Your task to perform on an android device: Open calendar and show me the fourth week of next month Image 0: 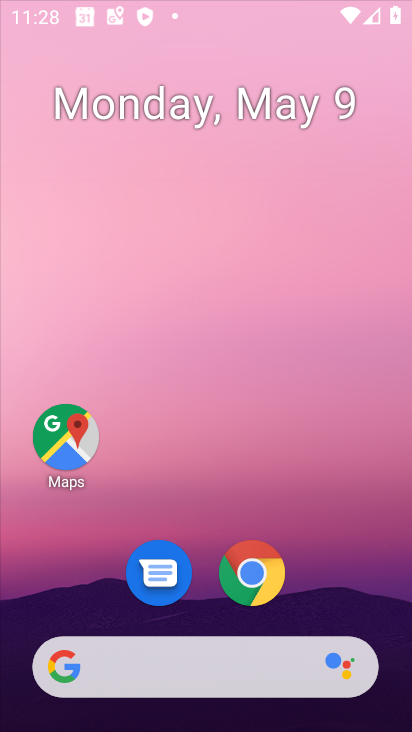
Step 0: drag from (180, 618) to (244, 245)
Your task to perform on an android device: Open calendar and show me the fourth week of next month Image 1: 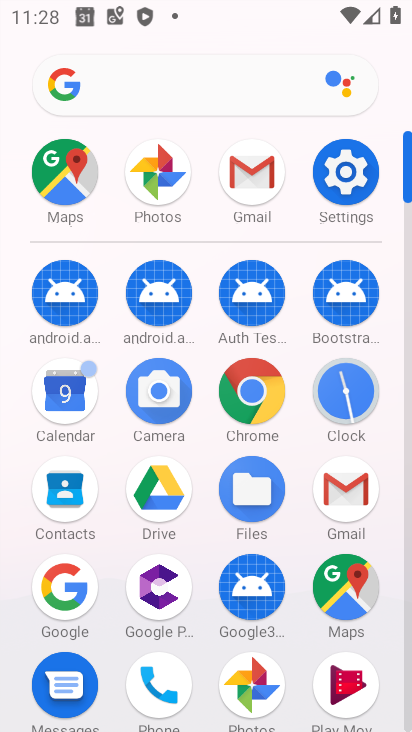
Step 1: click (50, 391)
Your task to perform on an android device: Open calendar and show me the fourth week of next month Image 2: 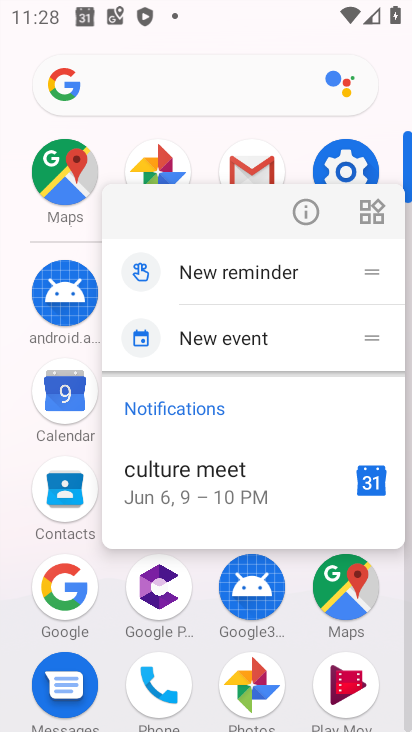
Step 2: click (74, 301)
Your task to perform on an android device: Open calendar and show me the fourth week of next month Image 3: 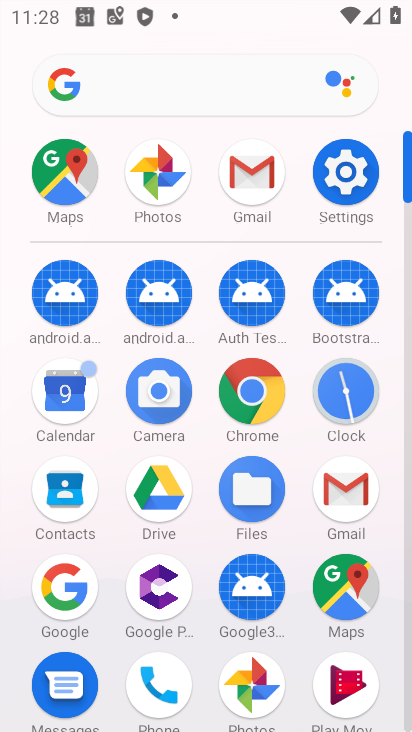
Step 3: click (66, 407)
Your task to perform on an android device: Open calendar and show me the fourth week of next month Image 4: 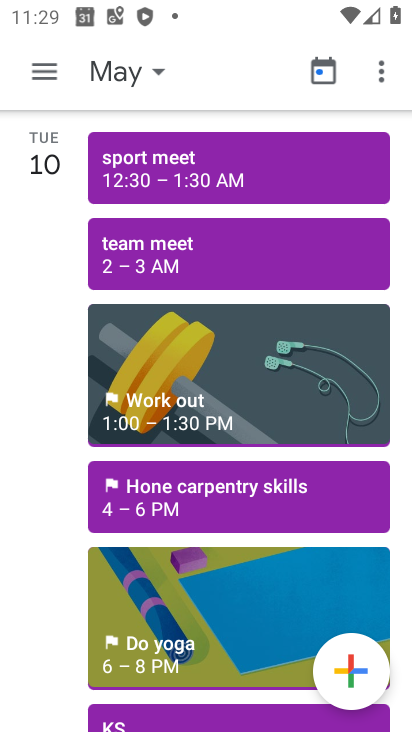
Step 4: click (127, 68)
Your task to perform on an android device: Open calendar and show me the fourth week of next month Image 5: 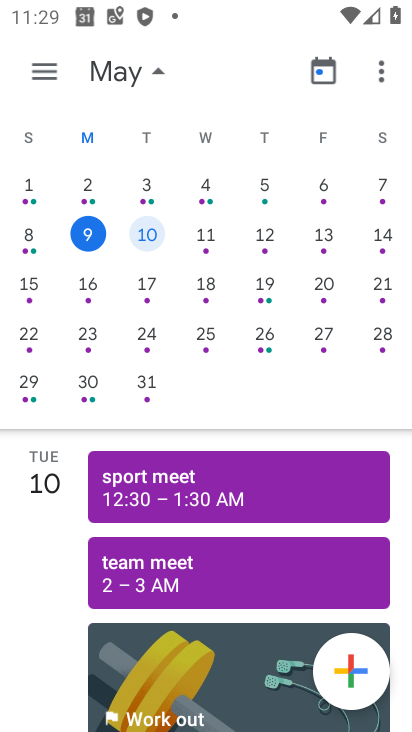
Step 5: drag from (357, 213) to (0, 258)
Your task to perform on an android device: Open calendar and show me the fourth week of next month Image 6: 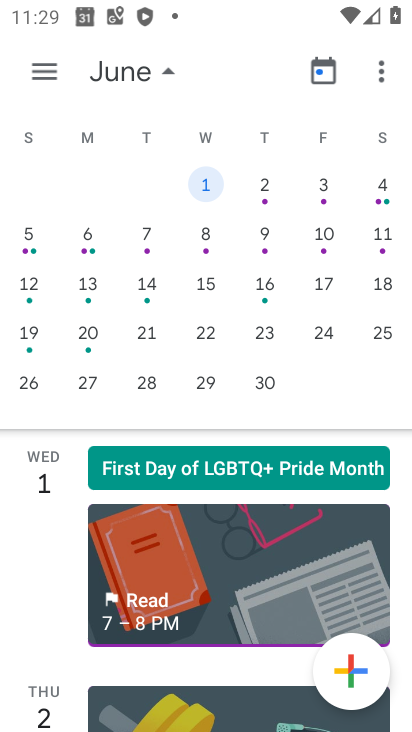
Step 6: click (270, 331)
Your task to perform on an android device: Open calendar and show me the fourth week of next month Image 7: 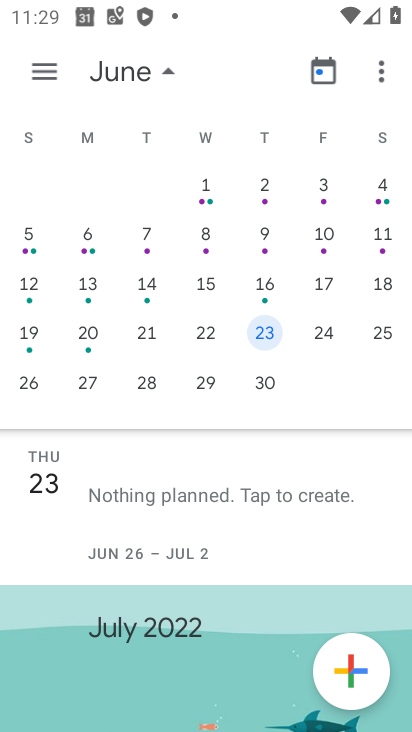
Step 7: task complete